Your task to perform on an android device: turn on the 24-hour format for clock Image 0: 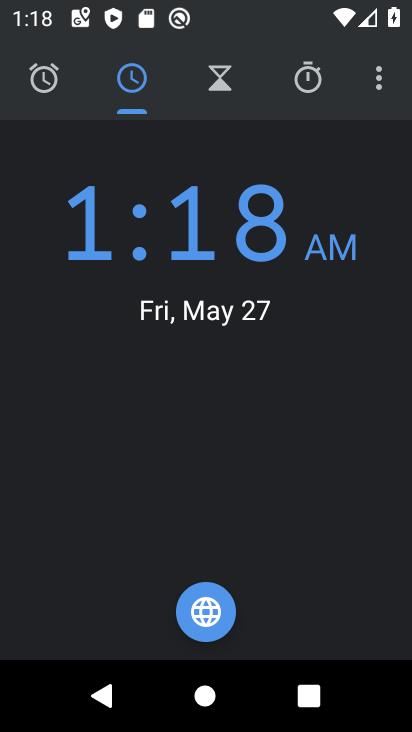
Step 0: press home button
Your task to perform on an android device: turn on the 24-hour format for clock Image 1: 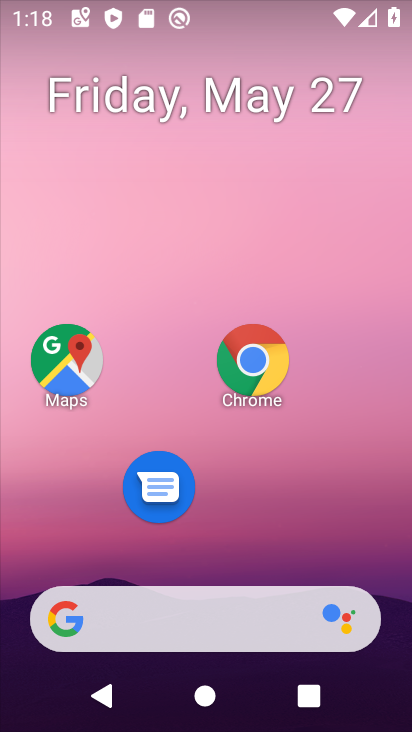
Step 1: drag from (259, 542) to (228, 32)
Your task to perform on an android device: turn on the 24-hour format for clock Image 2: 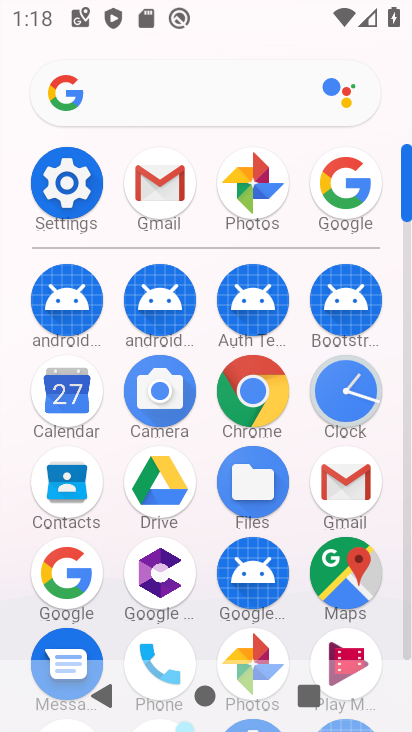
Step 2: click (338, 388)
Your task to perform on an android device: turn on the 24-hour format for clock Image 3: 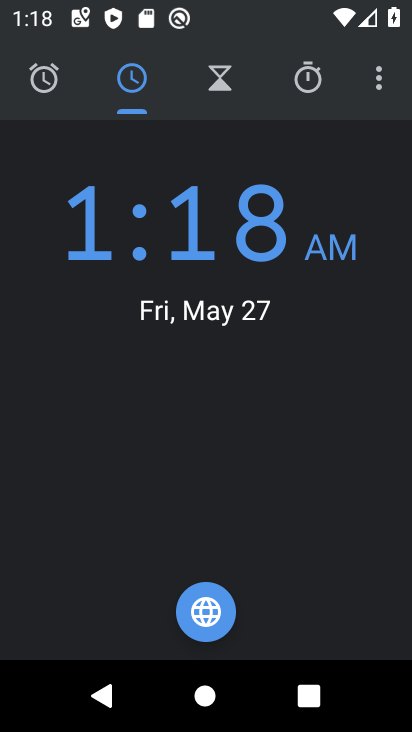
Step 3: click (364, 76)
Your task to perform on an android device: turn on the 24-hour format for clock Image 4: 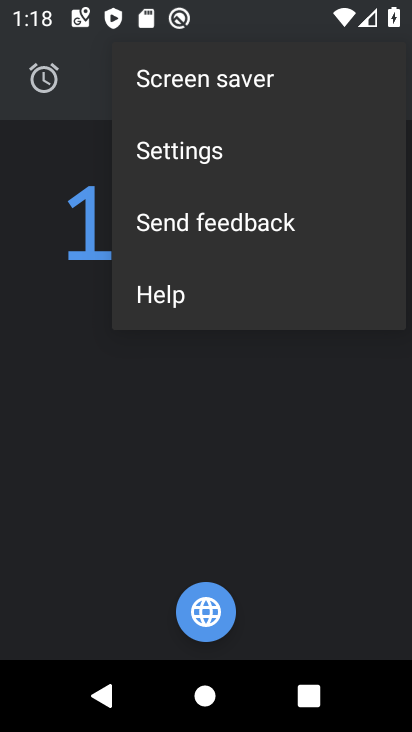
Step 4: click (195, 149)
Your task to perform on an android device: turn on the 24-hour format for clock Image 5: 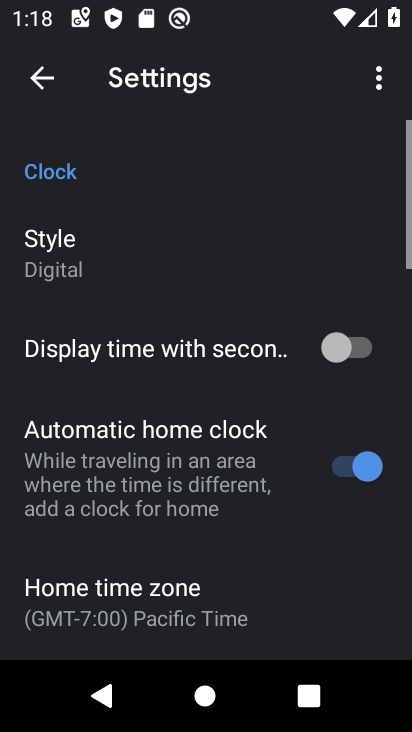
Step 5: drag from (241, 561) to (223, 145)
Your task to perform on an android device: turn on the 24-hour format for clock Image 6: 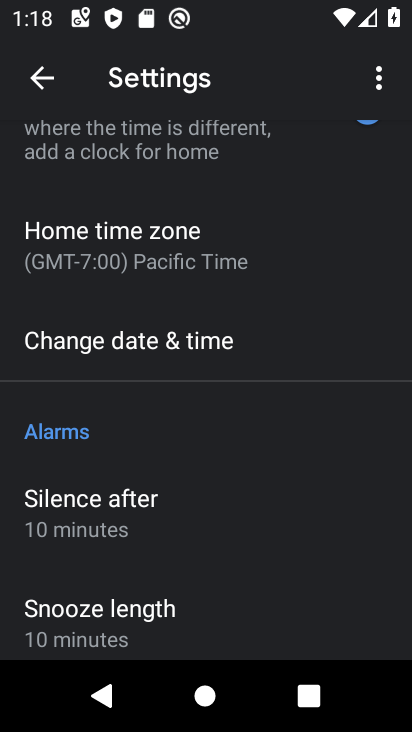
Step 6: click (165, 350)
Your task to perform on an android device: turn on the 24-hour format for clock Image 7: 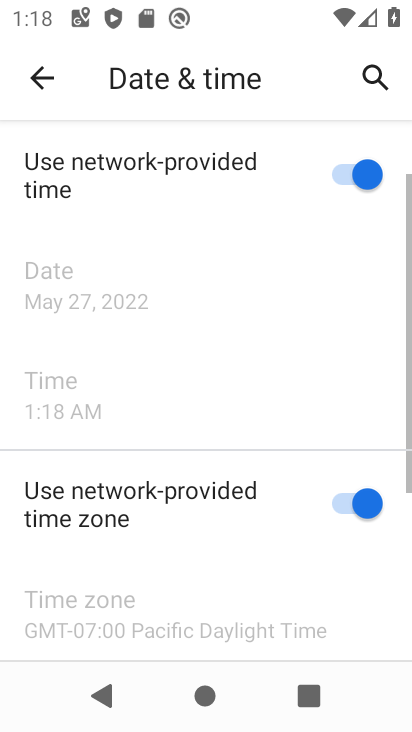
Step 7: drag from (269, 610) to (282, 103)
Your task to perform on an android device: turn on the 24-hour format for clock Image 8: 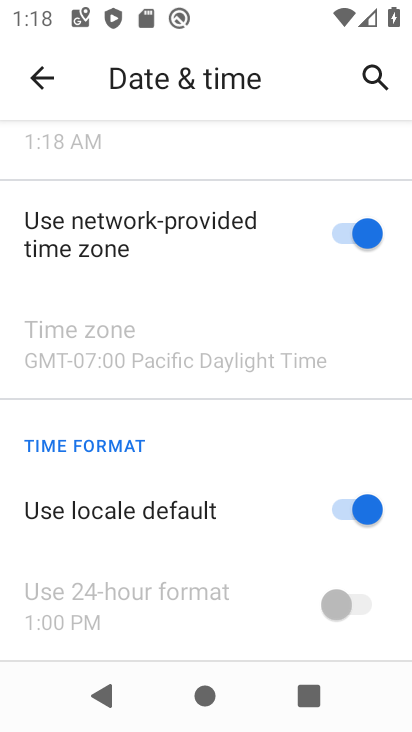
Step 8: click (365, 516)
Your task to perform on an android device: turn on the 24-hour format for clock Image 9: 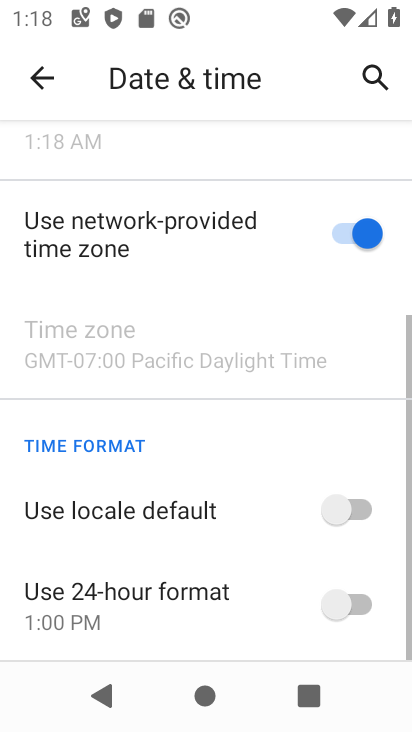
Step 9: click (353, 605)
Your task to perform on an android device: turn on the 24-hour format for clock Image 10: 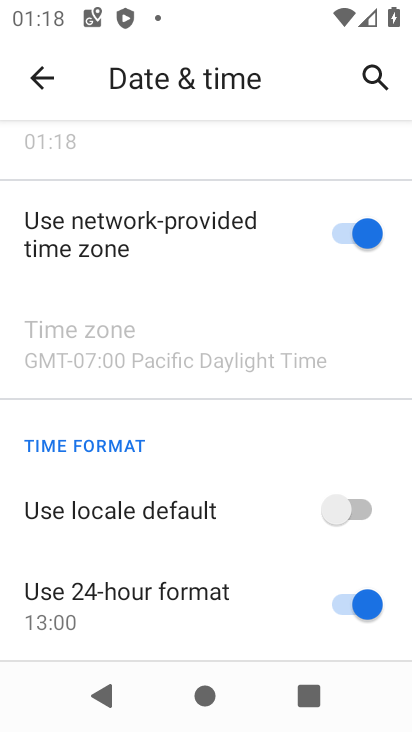
Step 10: task complete